Your task to perform on an android device: Open accessibility settings Image 0: 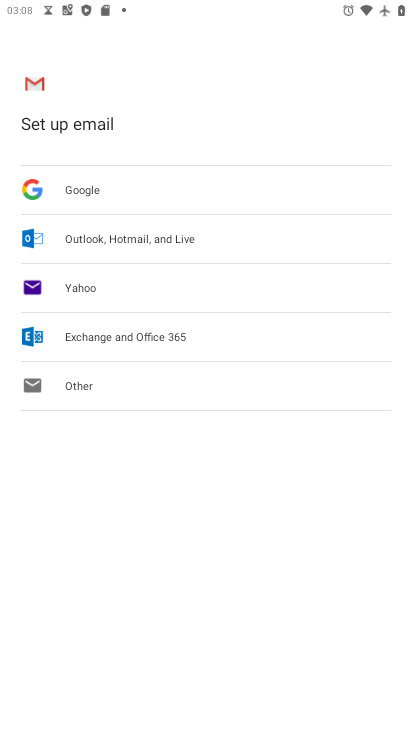
Step 0: press home button
Your task to perform on an android device: Open accessibility settings Image 1: 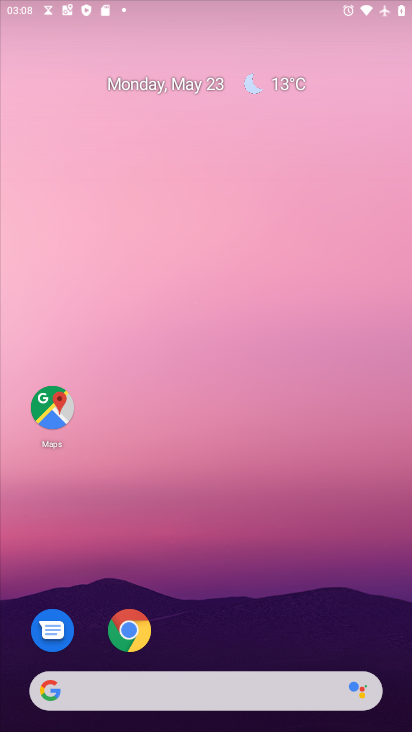
Step 1: drag from (263, 509) to (138, 20)
Your task to perform on an android device: Open accessibility settings Image 2: 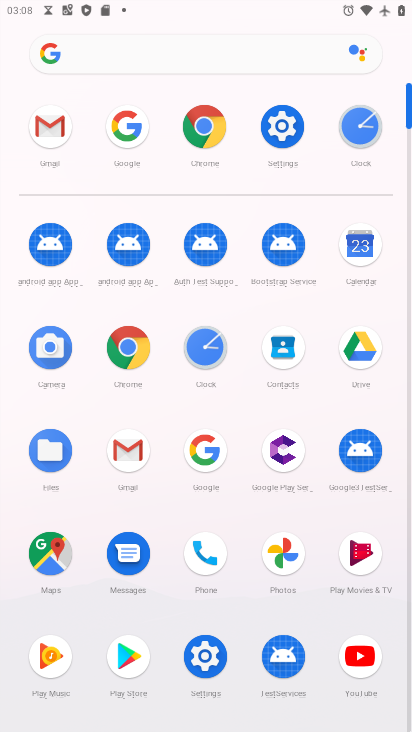
Step 2: click (265, 127)
Your task to perform on an android device: Open accessibility settings Image 3: 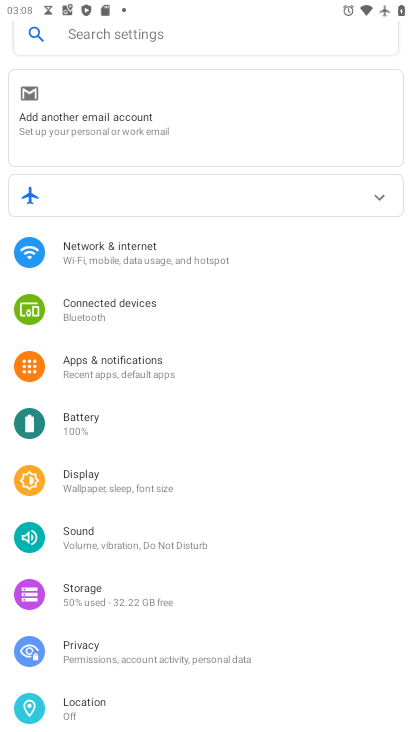
Step 3: drag from (247, 685) to (219, 172)
Your task to perform on an android device: Open accessibility settings Image 4: 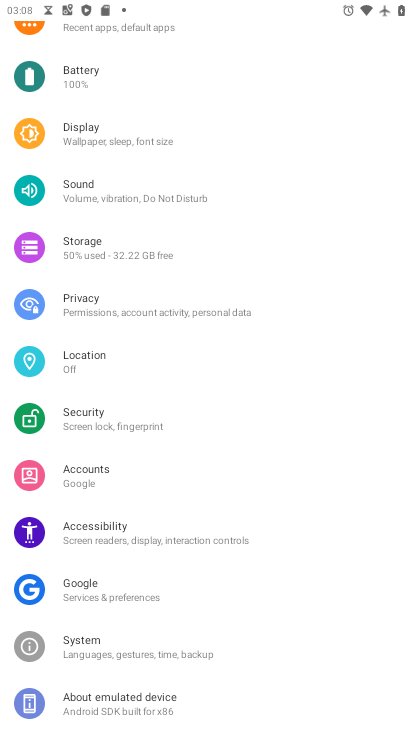
Step 4: click (143, 520)
Your task to perform on an android device: Open accessibility settings Image 5: 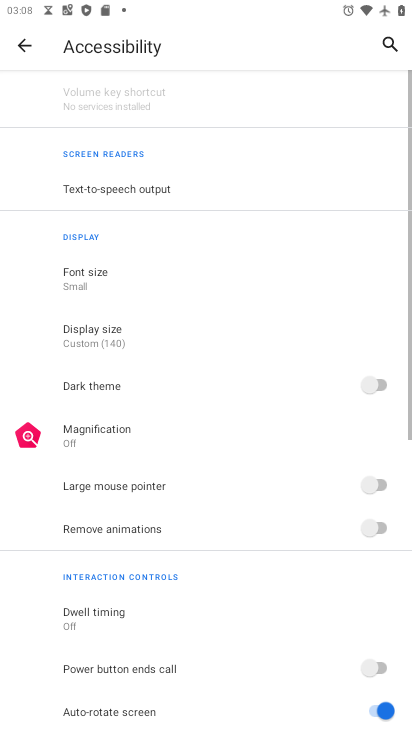
Step 5: task complete